Your task to perform on an android device: What's the news in Trinidad and Tobago? Image 0: 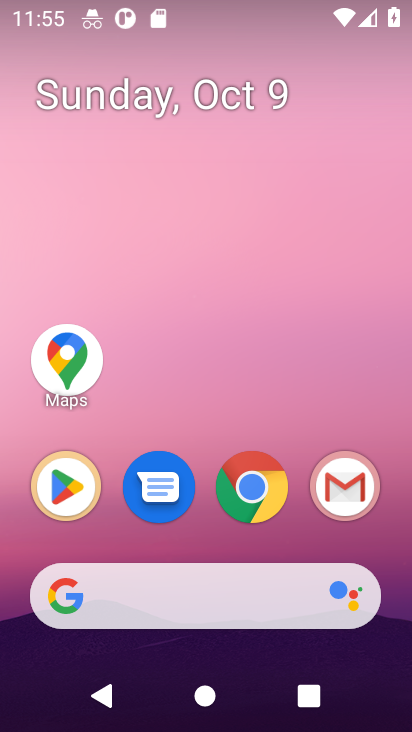
Step 0: click (259, 487)
Your task to perform on an android device: What's the news in Trinidad and Tobago? Image 1: 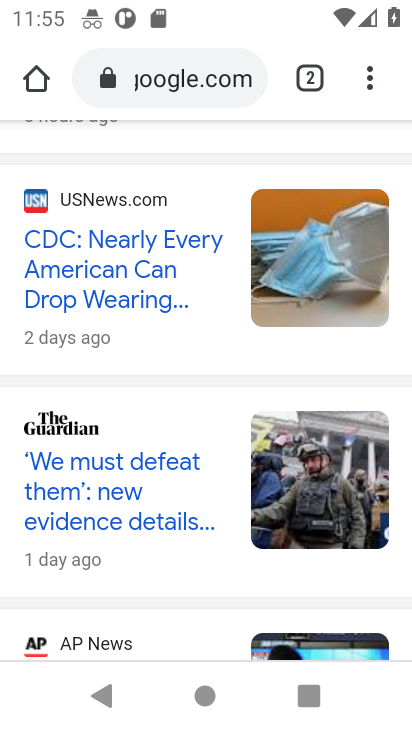
Step 1: click (197, 71)
Your task to perform on an android device: What's the news in Trinidad and Tobago? Image 2: 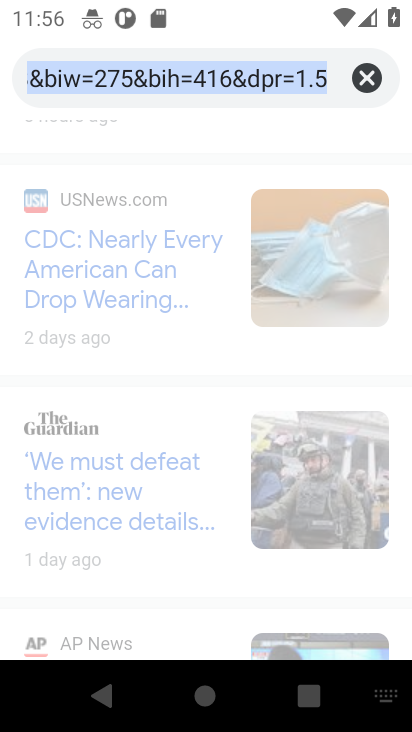
Step 2: type "news in Trinidad  and tobago"
Your task to perform on an android device: What's the news in Trinidad and Tobago? Image 3: 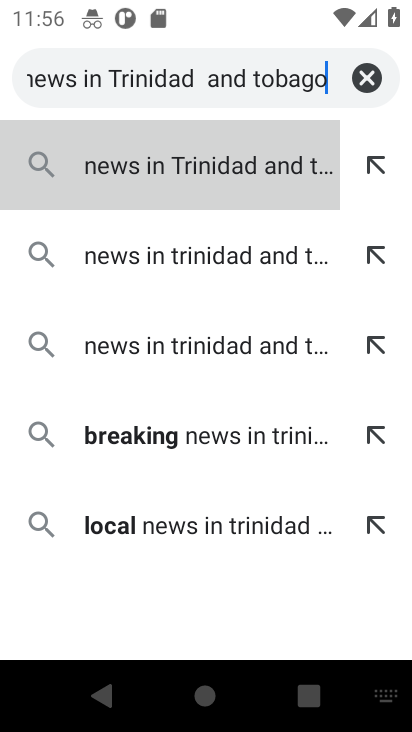
Step 3: type ""
Your task to perform on an android device: What's the news in Trinidad and Tobago? Image 4: 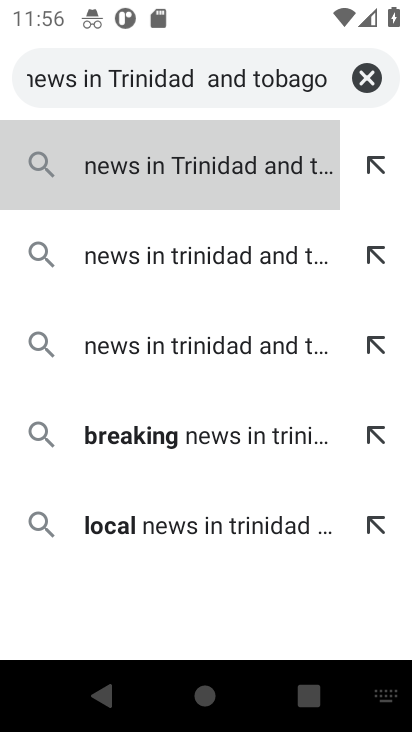
Step 4: press enter
Your task to perform on an android device: What's the news in Trinidad and Tobago? Image 5: 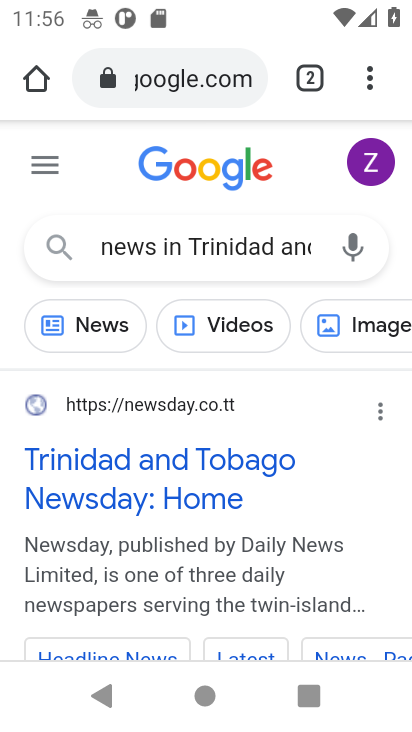
Step 5: click (83, 335)
Your task to perform on an android device: What's the news in Trinidad and Tobago? Image 6: 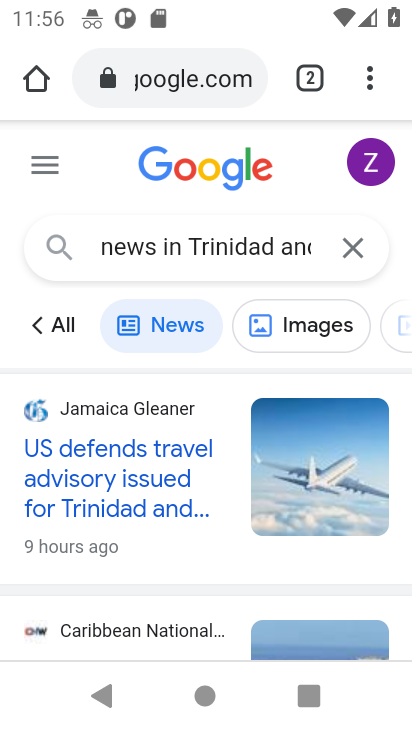
Step 6: task complete